Your task to perform on an android device: turn on translation in the chrome app Image 0: 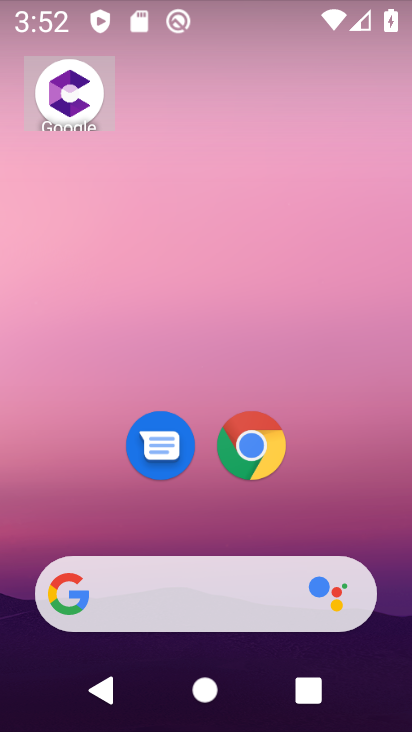
Step 0: click (255, 455)
Your task to perform on an android device: turn on translation in the chrome app Image 1: 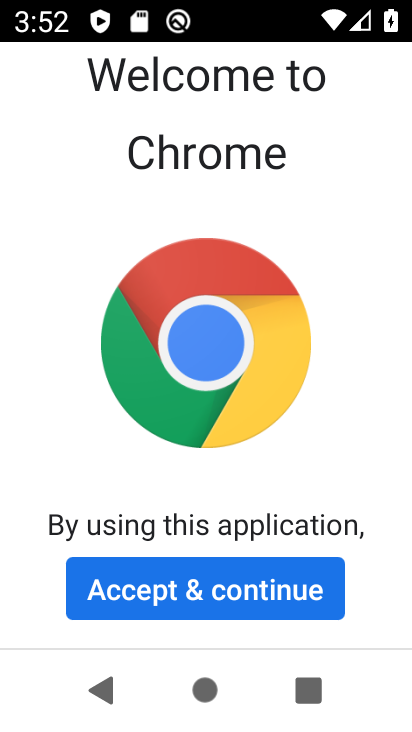
Step 1: click (243, 602)
Your task to perform on an android device: turn on translation in the chrome app Image 2: 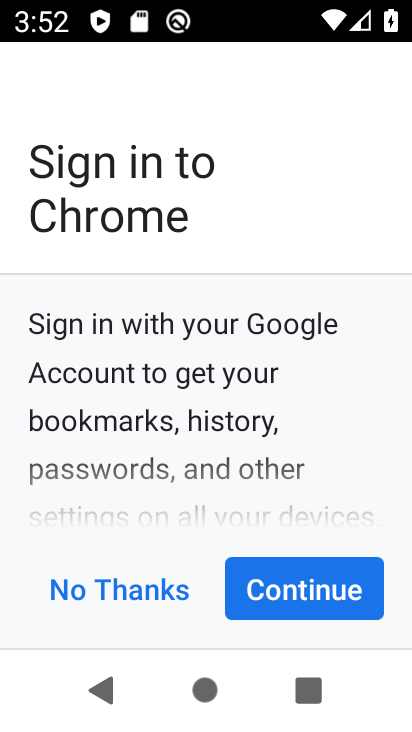
Step 2: click (259, 572)
Your task to perform on an android device: turn on translation in the chrome app Image 3: 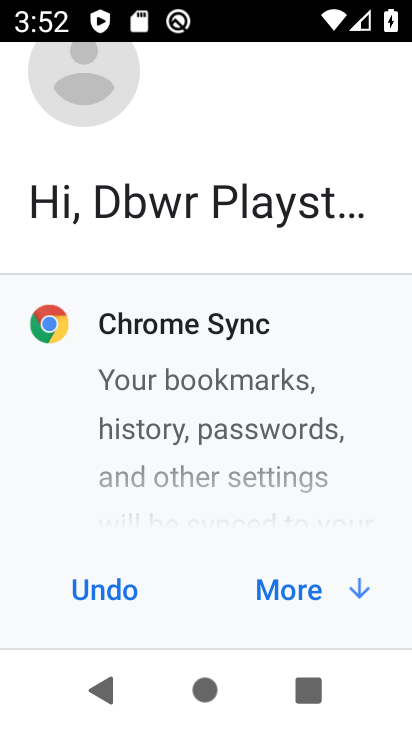
Step 3: click (265, 588)
Your task to perform on an android device: turn on translation in the chrome app Image 4: 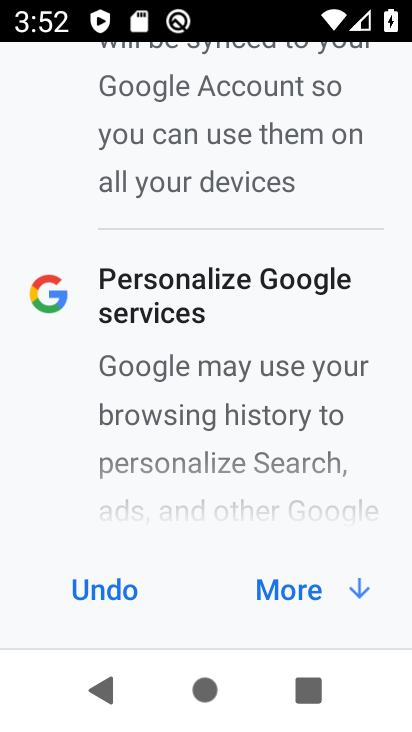
Step 4: click (265, 588)
Your task to perform on an android device: turn on translation in the chrome app Image 5: 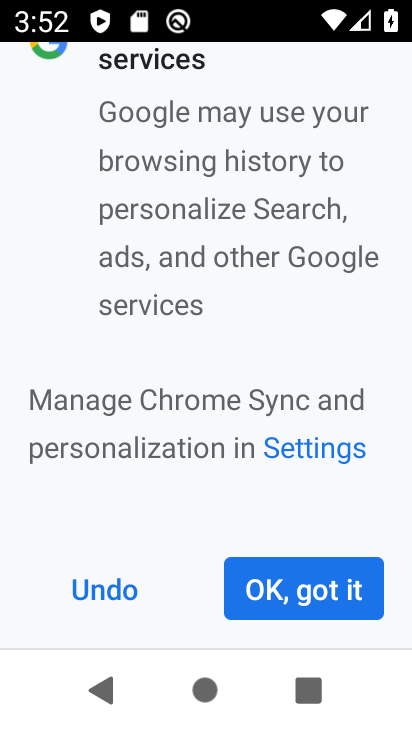
Step 5: click (265, 588)
Your task to perform on an android device: turn on translation in the chrome app Image 6: 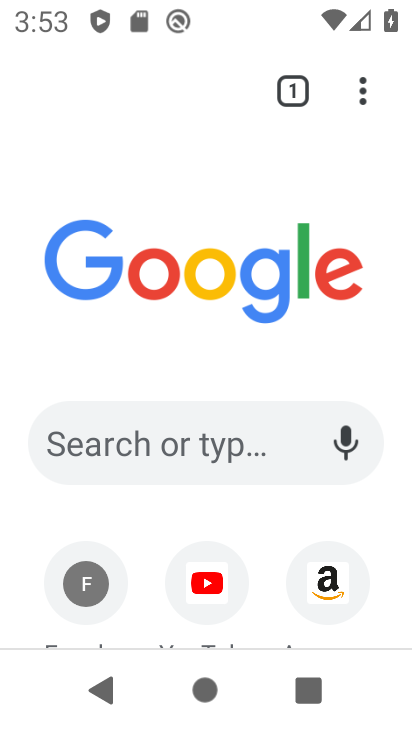
Step 6: drag from (361, 77) to (313, 503)
Your task to perform on an android device: turn on translation in the chrome app Image 7: 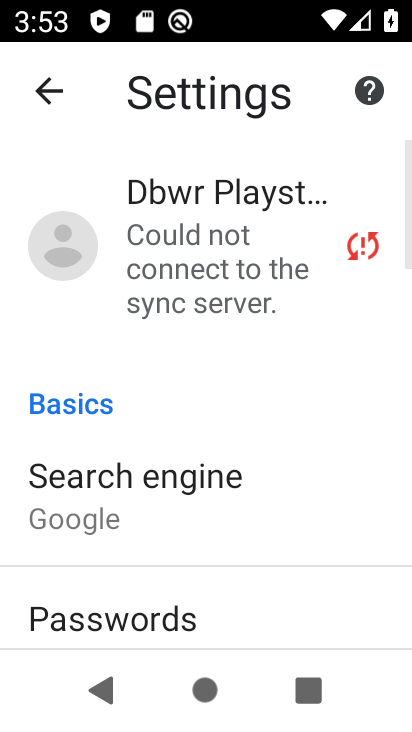
Step 7: drag from (304, 594) to (143, 139)
Your task to perform on an android device: turn on translation in the chrome app Image 8: 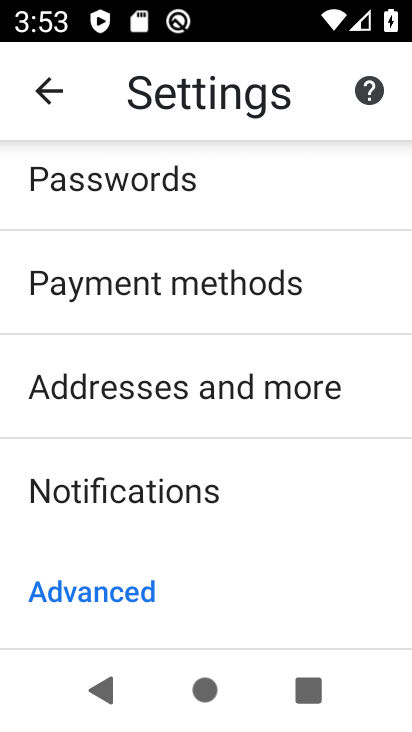
Step 8: drag from (213, 580) to (143, 264)
Your task to perform on an android device: turn on translation in the chrome app Image 9: 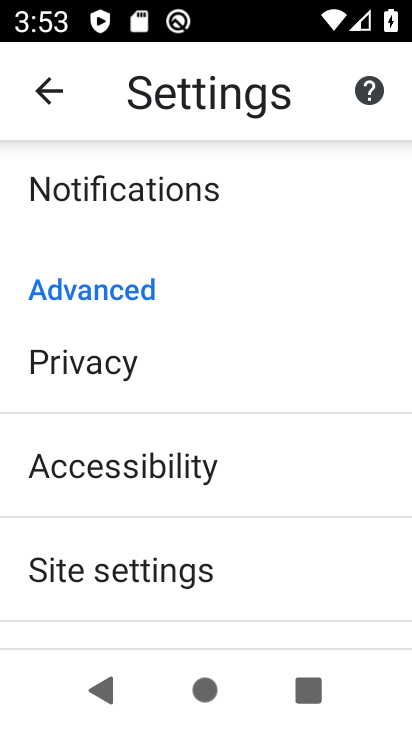
Step 9: drag from (157, 603) to (126, 352)
Your task to perform on an android device: turn on translation in the chrome app Image 10: 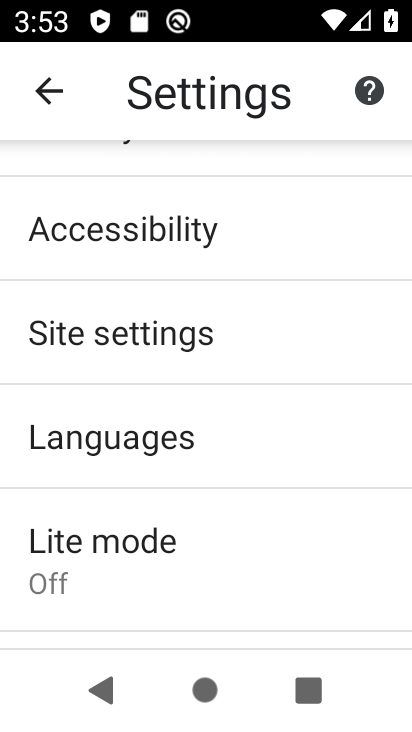
Step 10: click (102, 440)
Your task to perform on an android device: turn on translation in the chrome app Image 11: 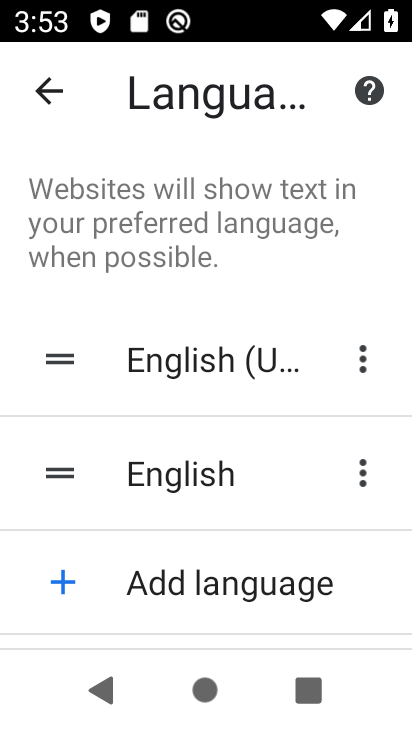
Step 11: task complete